Your task to perform on an android device: change alarm snooze length Image 0: 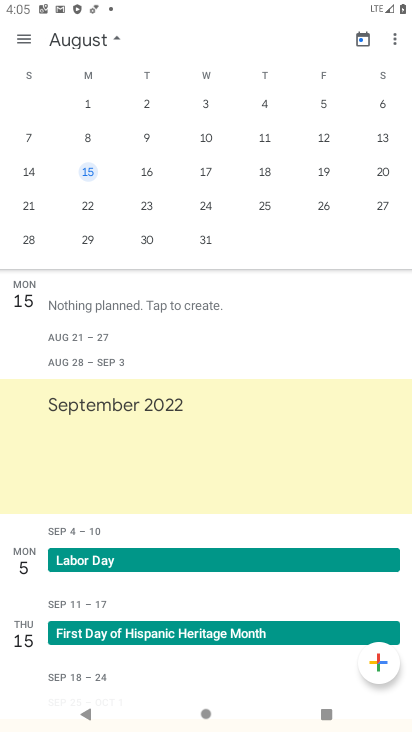
Step 0: press home button
Your task to perform on an android device: change alarm snooze length Image 1: 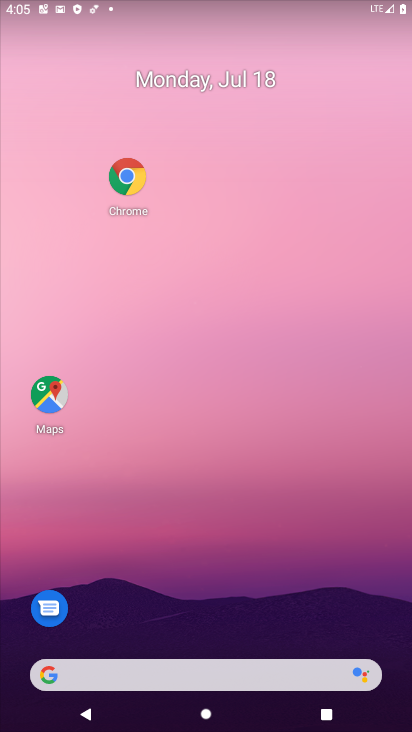
Step 1: drag from (180, 621) to (234, 248)
Your task to perform on an android device: change alarm snooze length Image 2: 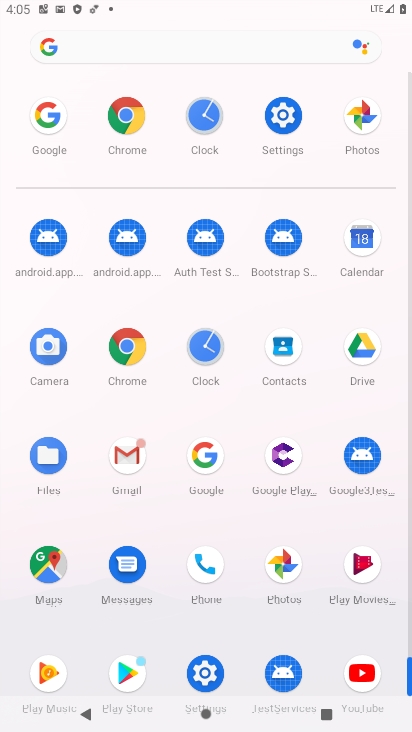
Step 2: click (288, 134)
Your task to perform on an android device: change alarm snooze length Image 3: 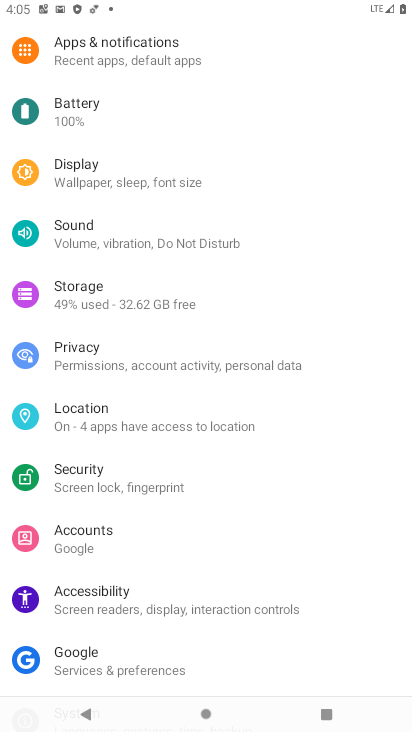
Step 3: press home button
Your task to perform on an android device: change alarm snooze length Image 4: 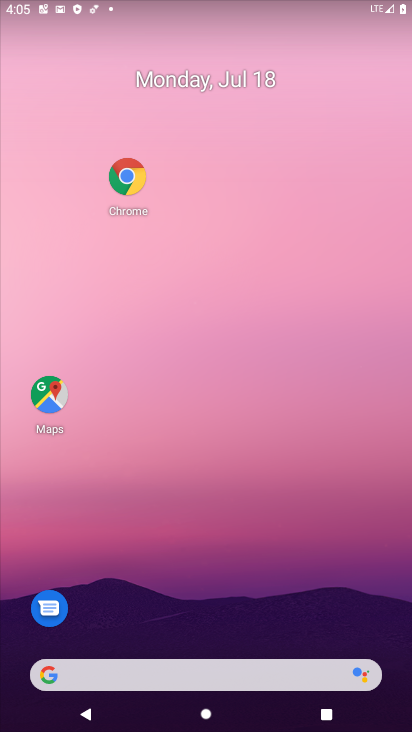
Step 4: drag from (222, 592) to (258, 322)
Your task to perform on an android device: change alarm snooze length Image 5: 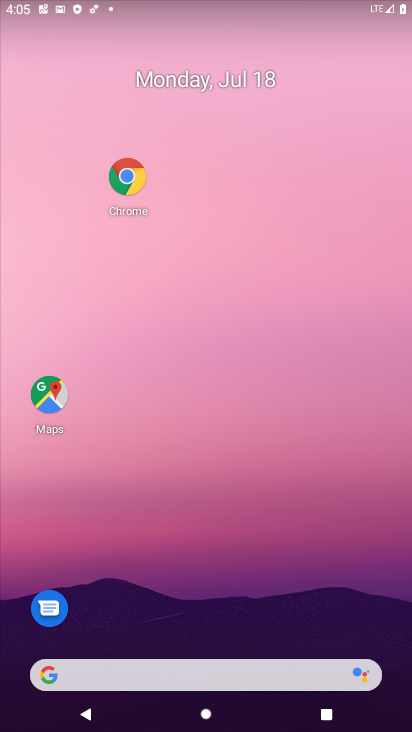
Step 5: drag from (211, 564) to (292, 144)
Your task to perform on an android device: change alarm snooze length Image 6: 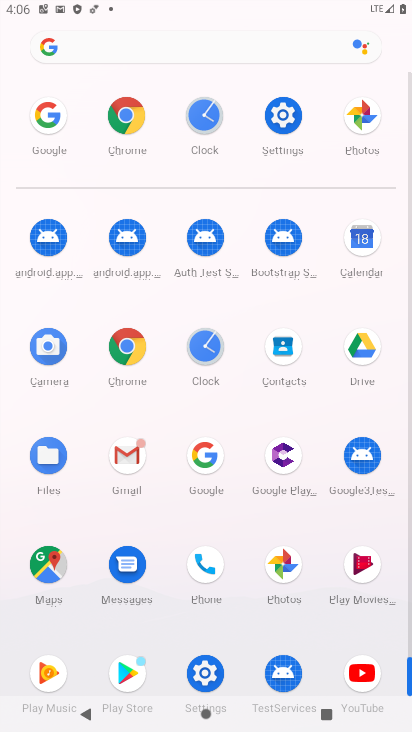
Step 6: click (217, 130)
Your task to perform on an android device: change alarm snooze length Image 7: 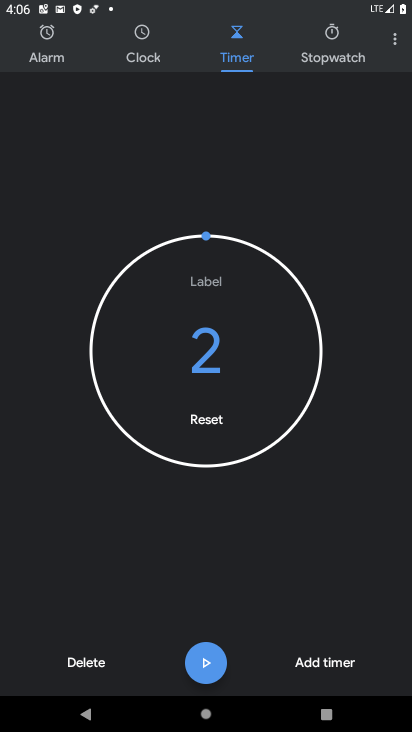
Step 7: click (393, 46)
Your task to perform on an android device: change alarm snooze length Image 8: 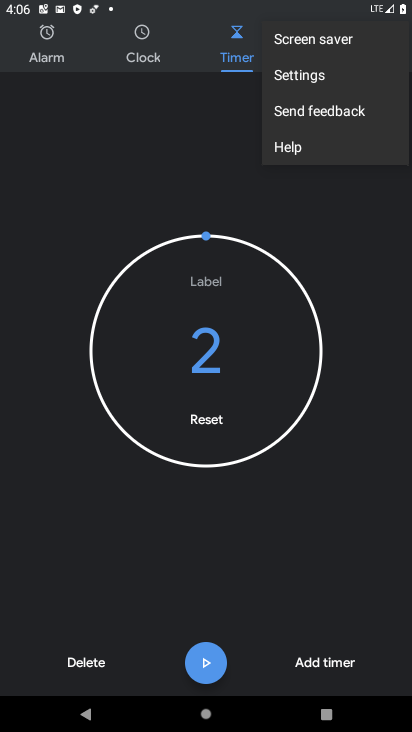
Step 8: click (296, 76)
Your task to perform on an android device: change alarm snooze length Image 9: 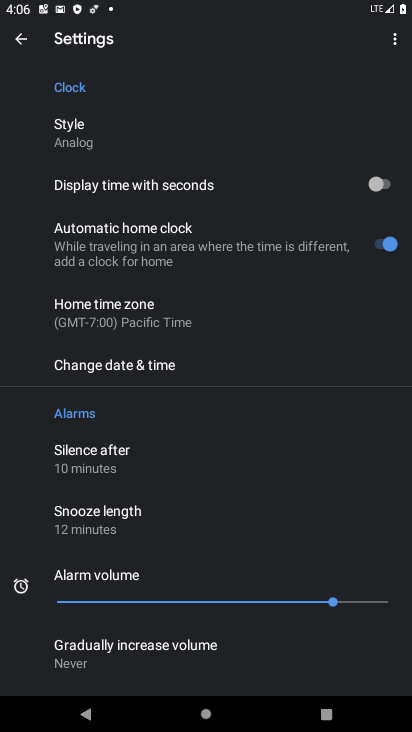
Step 9: drag from (130, 559) to (171, 411)
Your task to perform on an android device: change alarm snooze length Image 10: 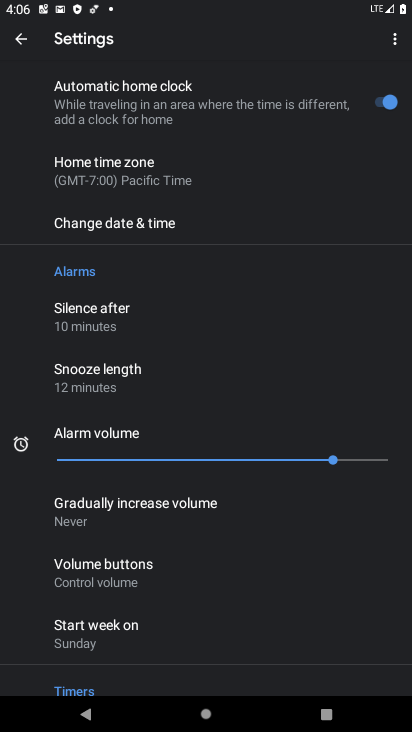
Step 10: click (125, 380)
Your task to perform on an android device: change alarm snooze length Image 11: 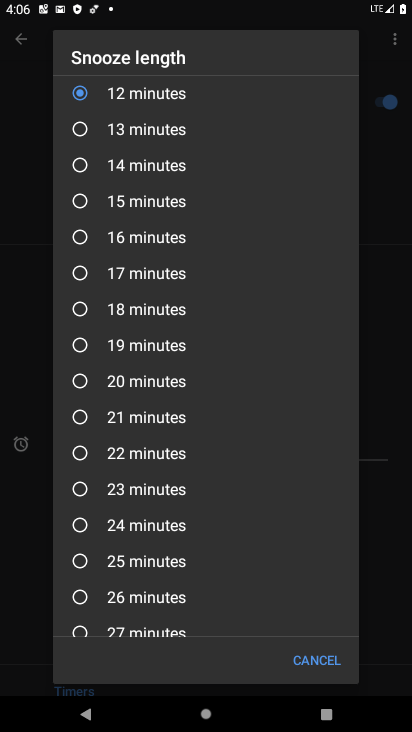
Step 11: click (94, 135)
Your task to perform on an android device: change alarm snooze length Image 12: 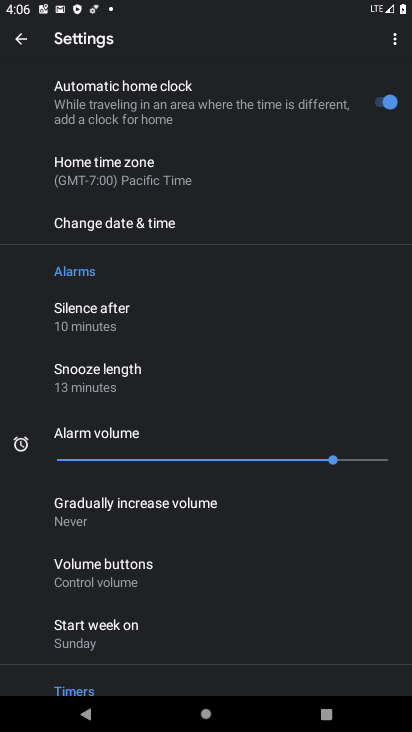
Step 12: task complete